Your task to perform on an android device: turn notification dots off Image 0: 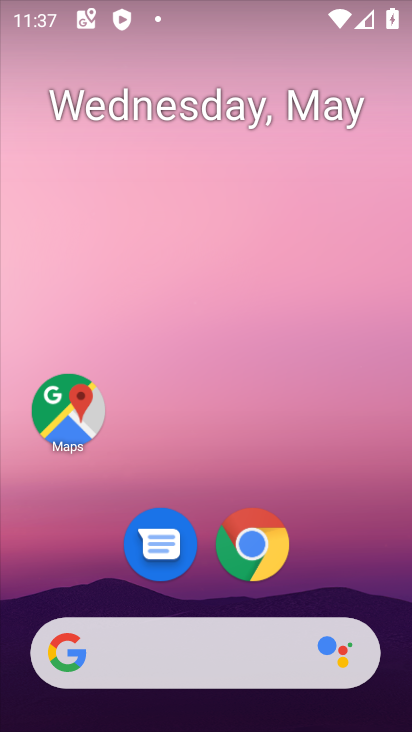
Step 0: drag from (170, 453) to (212, 86)
Your task to perform on an android device: turn notification dots off Image 1: 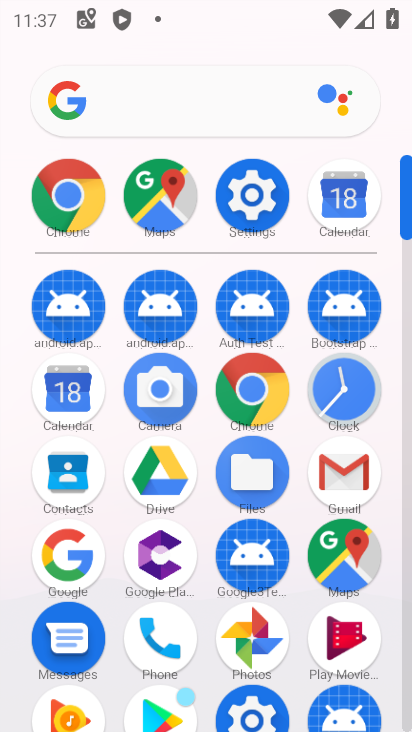
Step 1: click (268, 198)
Your task to perform on an android device: turn notification dots off Image 2: 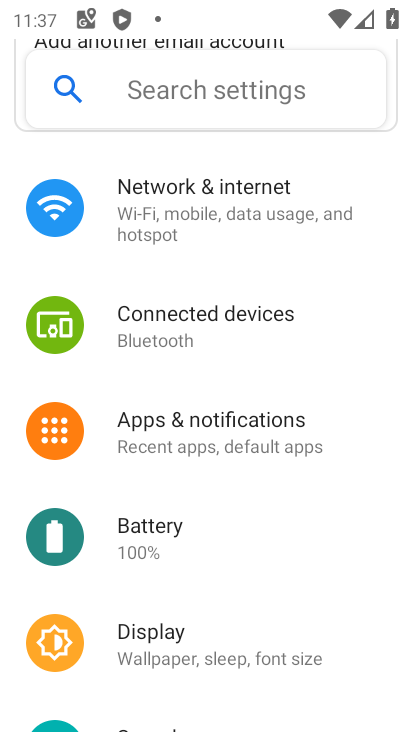
Step 2: click (231, 417)
Your task to perform on an android device: turn notification dots off Image 3: 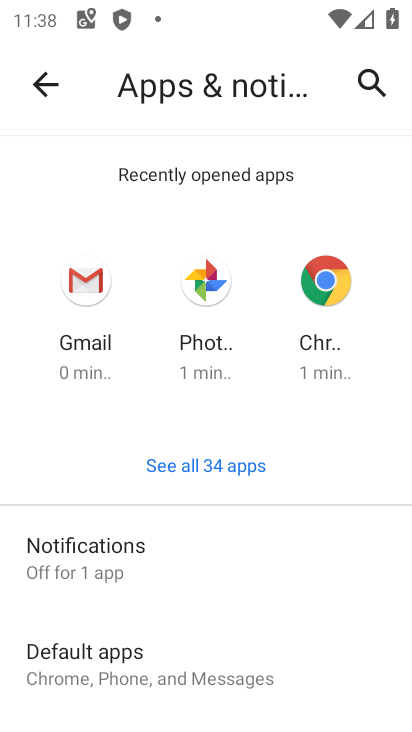
Step 3: click (226, 534)
Your task to perform on an android device: turn notification dots off Image 4: 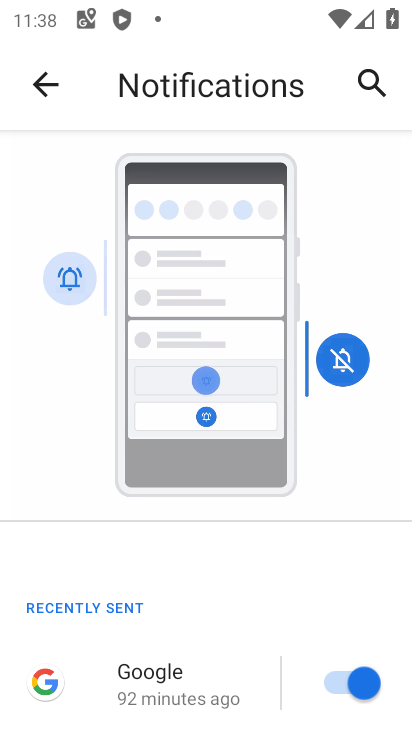
Step 4: drag from (208, 674) to (210, 152)
Your task to perform on an android device: turn notification dots off Image 5: 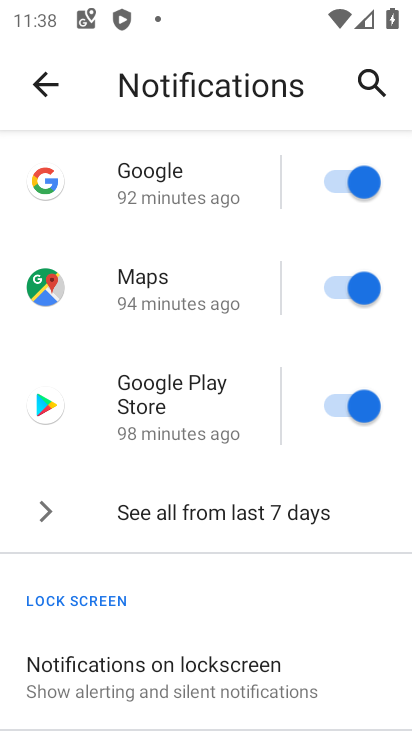
Step 5: drag from (155, 646) to (140, 223)
Your task to perform on an android device: turn notification dots off Image 6: 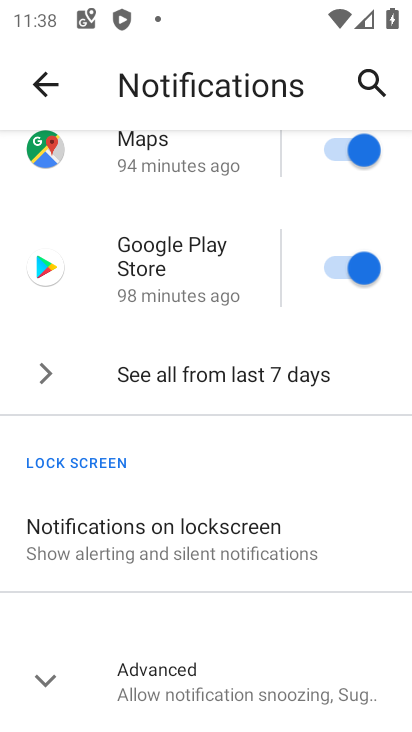
Step 6: click (172, 691)
Your task to perform on an android device: turn notification dots off Image 7: 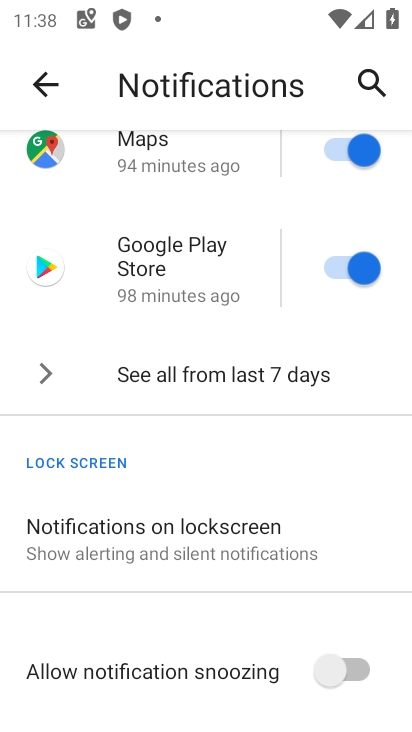
Step 7: drag from (192, 615) to (258, 324)
Your task to perform on an android device: turn notification dots off Image 8: 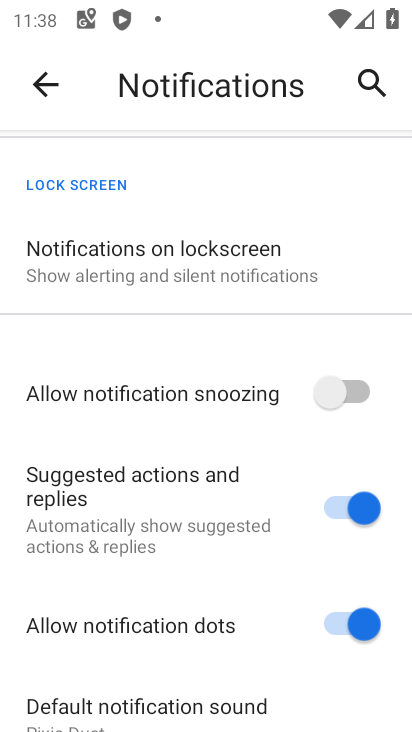
Step 8: click (356, 628)
Your task to perform on an android device: turn notification dots off Image 9: 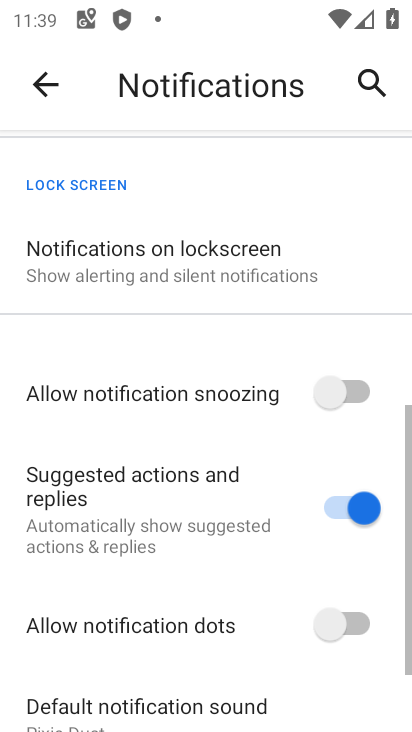
Step 9: task complete